Your task to perform on an android device: visit the assistant section in the google photos Image 0: 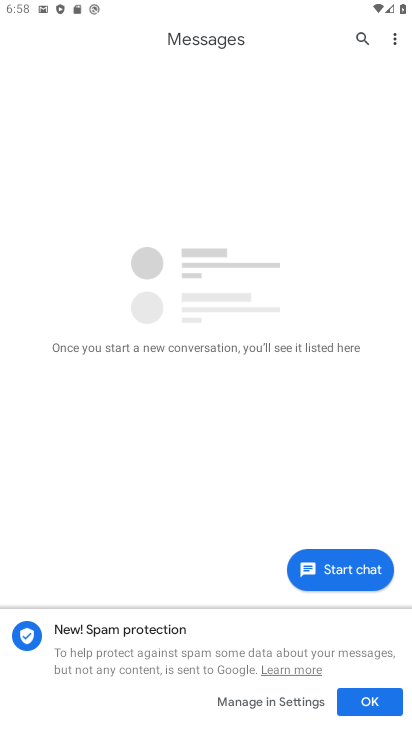
Step 0: press home button
Your task to perform on an android device: visit the assistant section in the google photos Image 1: 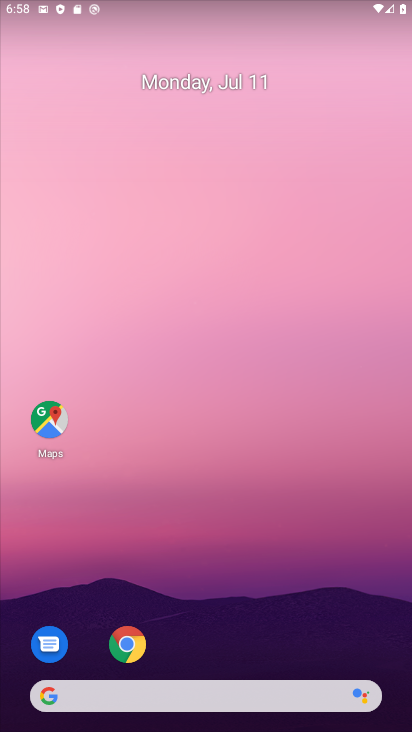
Step 1: drag from (231, 570) to (166, 127)
Your task to perform on an android device: visit the assistant section in the google photos Image 2: 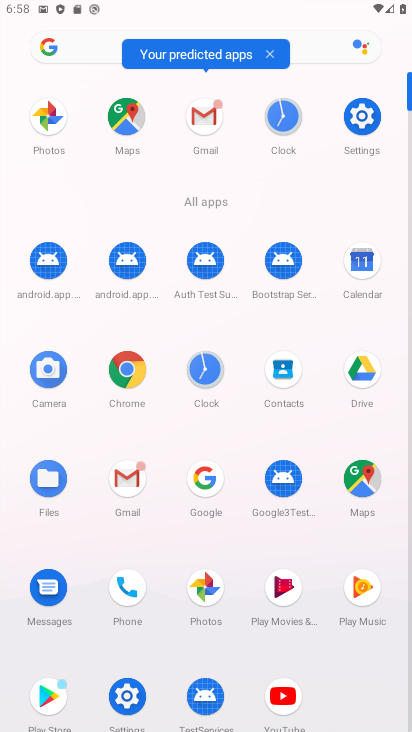
Step 2: click (203, 585)
Your task to perform on an android device: visit the assistant section in the google photos Image 3: 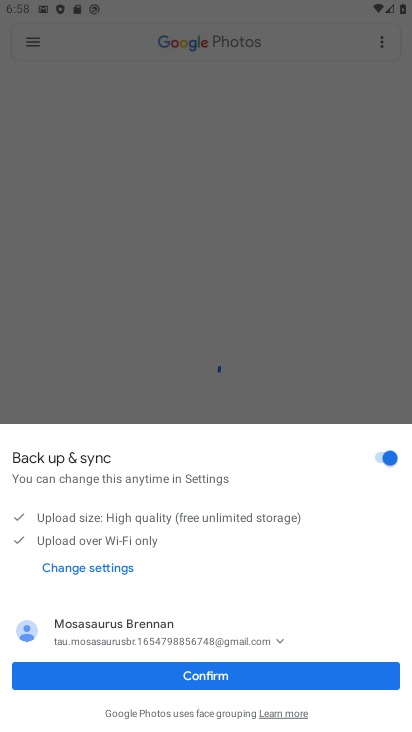
Step 3: click (167, 677)
Your task to perform on an android device: visit the assistant section in the google photos Image 4: 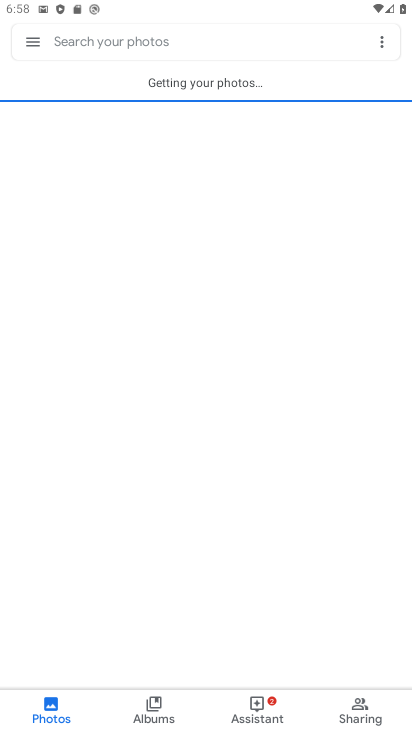
Step 4: click (262, 697)
Your task to perform on an android device: visit the assistant section in the google photos Image 5: 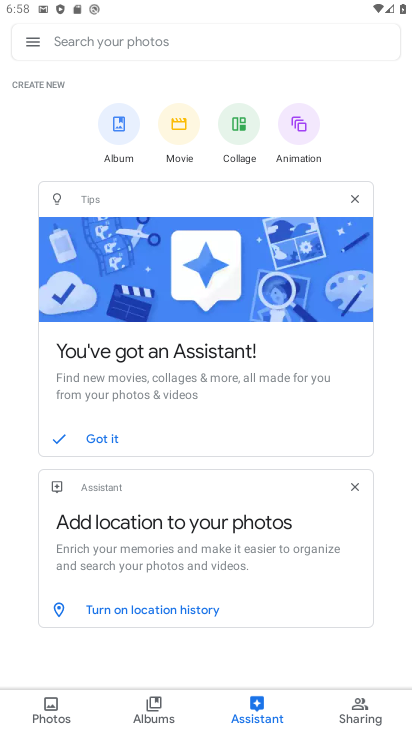
Step 5: task complete